Your task to perform on an android device: delete browsing data in the chrome app Image 0: 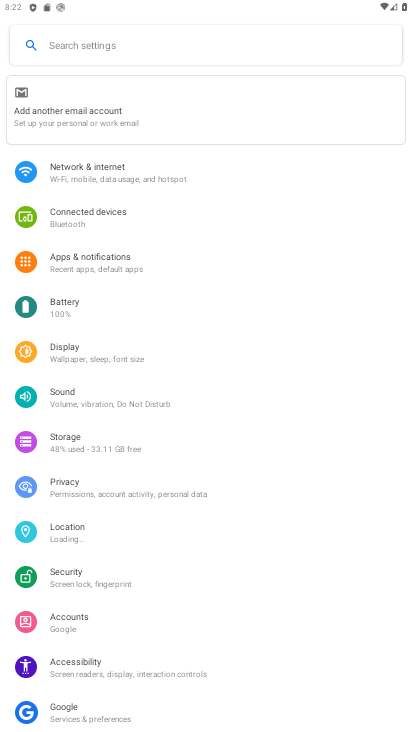
Step 0: press home button
Your task to perform on an android device: delete browsing data in the chrome app Image 1: 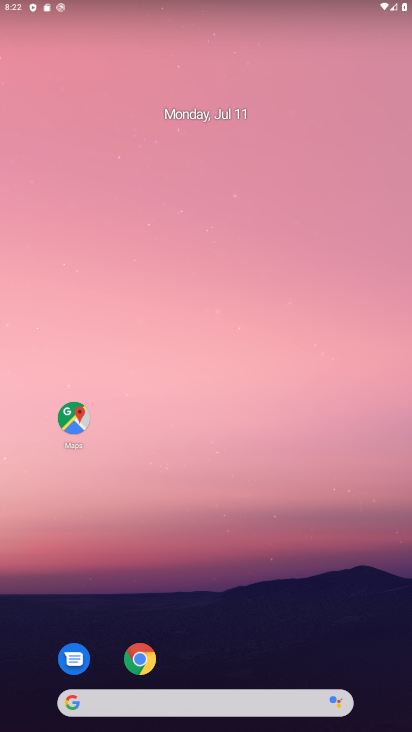
Step 1: click (136, 651)
Your task to perform on an android device: delete browsing data in the chrome app Image 2: 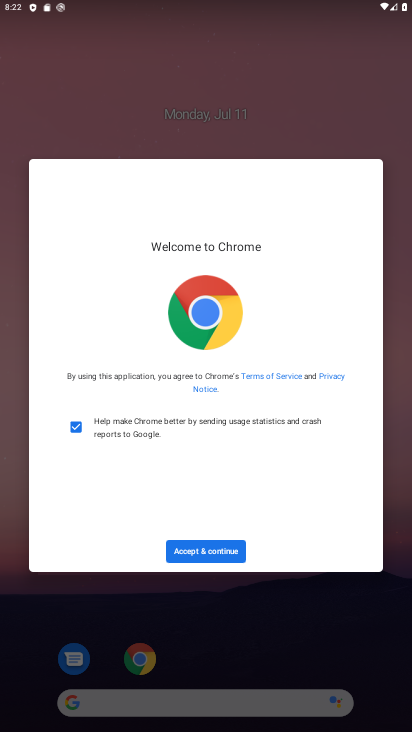
Step 2: click (222, 545)
Your task to perform on an android device: delete browsing data in the chrome app Image 3: 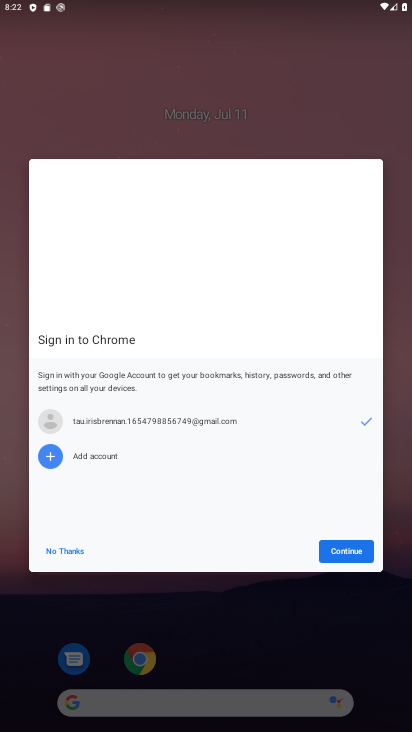
Step 3: click (346, 548)
Your task to perform on an android device: delete browsing data in the chrome app Image 4: 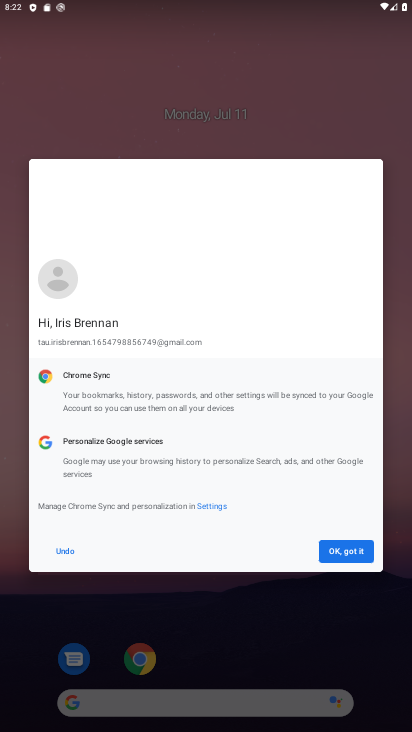
Step 4: click (346, 548)
Your task to perform on an android device: delete browsing data in the chrome app Image 5: 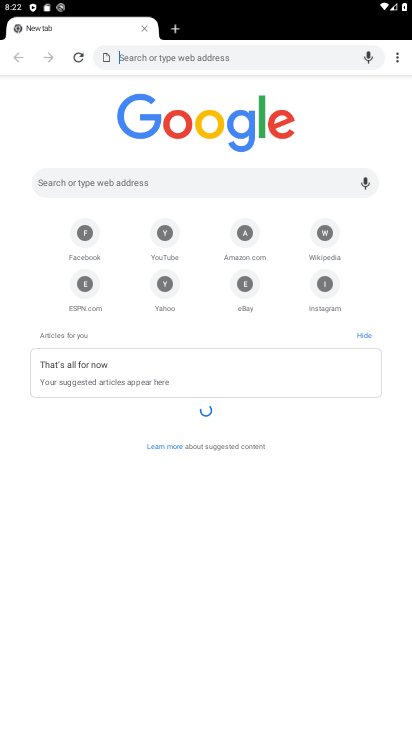
Step 5: click (393, 51)
Your task to perform on an android device: delete browsing data in the chrome app Image 6: 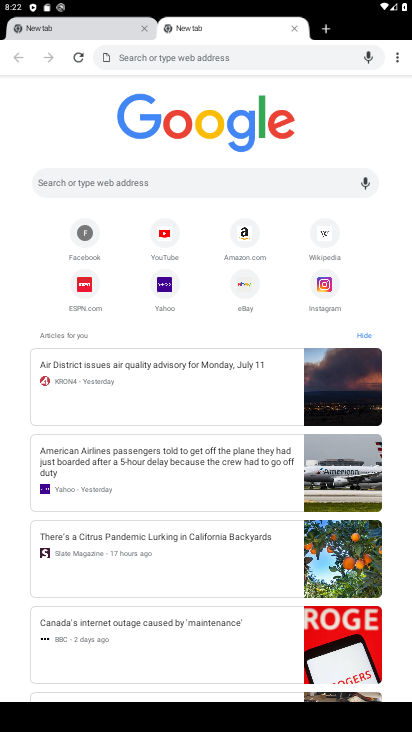
Step 6: click (390, 55)
Your task to perform on an android device: delete browsing data in the chrome app Image 7: 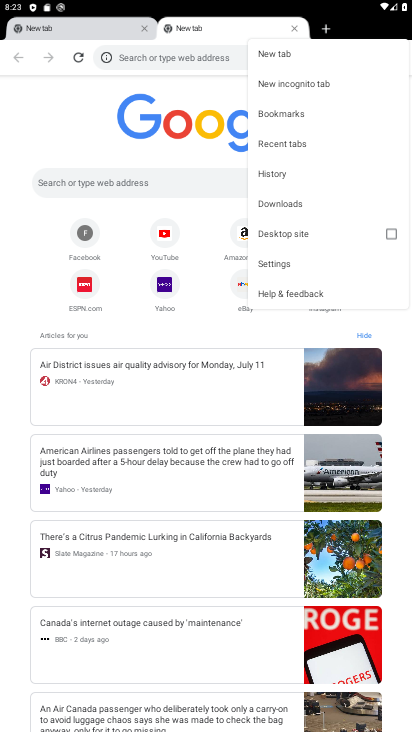
Step 7: click (281, 175)
Your task to perform on an android device: delete browsing data in the chrome app Image 8: 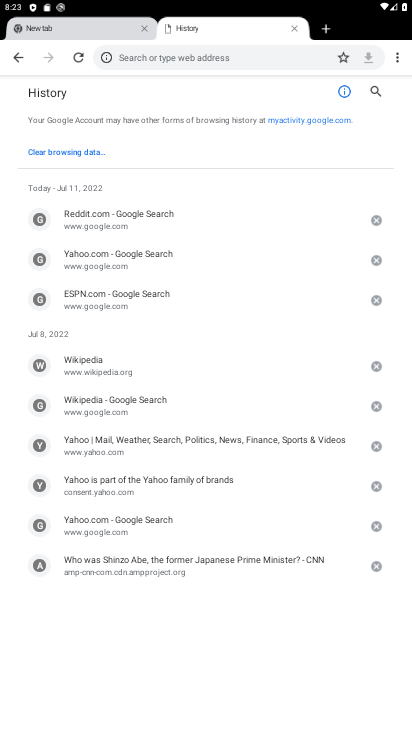
Step 8: click (39, 151)
Your task to perform on an android device: delete browsing data in the chrome app Image 9: 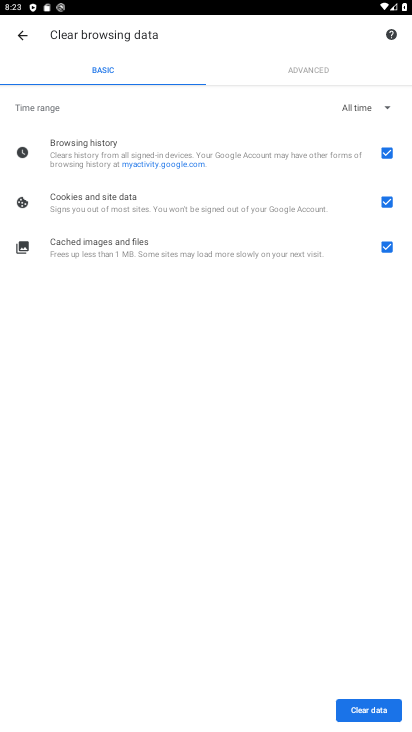
Step 9: click (365, 697)
Your task to perform on an android device: delete browsing data in the chrome app Image 10: 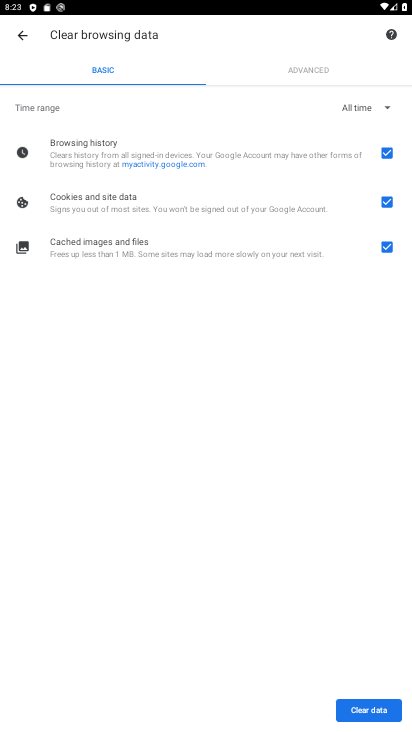
Step 10: click (367, 709)
Your task to perform on an android device: delete browsing data in the chrome app Image 11: 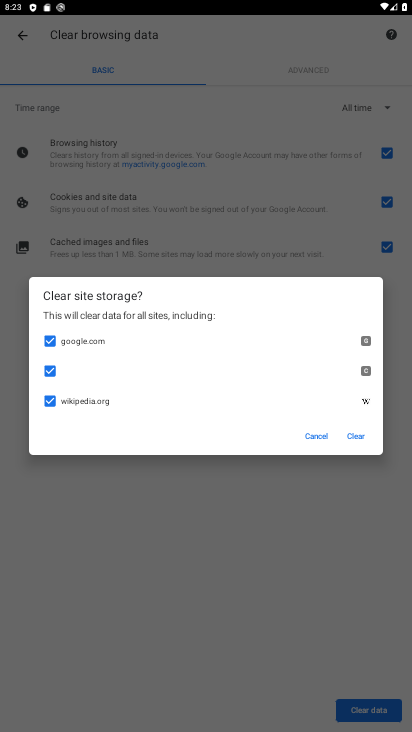
Step 11: click (360, 429)
Your task to perform on an android device: delete browsing data in the chrome app Image 12: 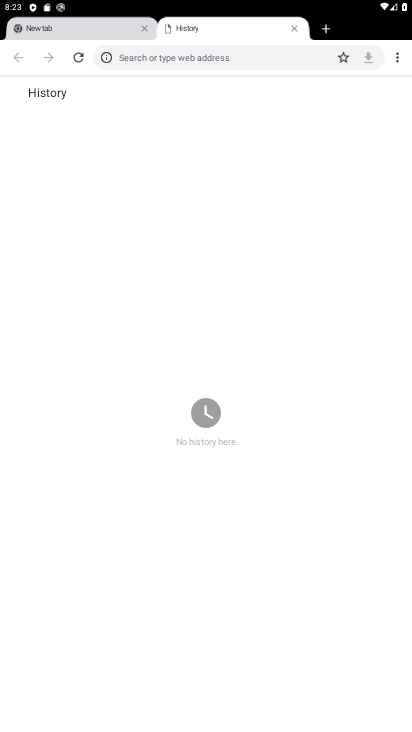
Step 12: task complete